Your task to perform on an android device: Show me the alarms in the clock app Image 0: 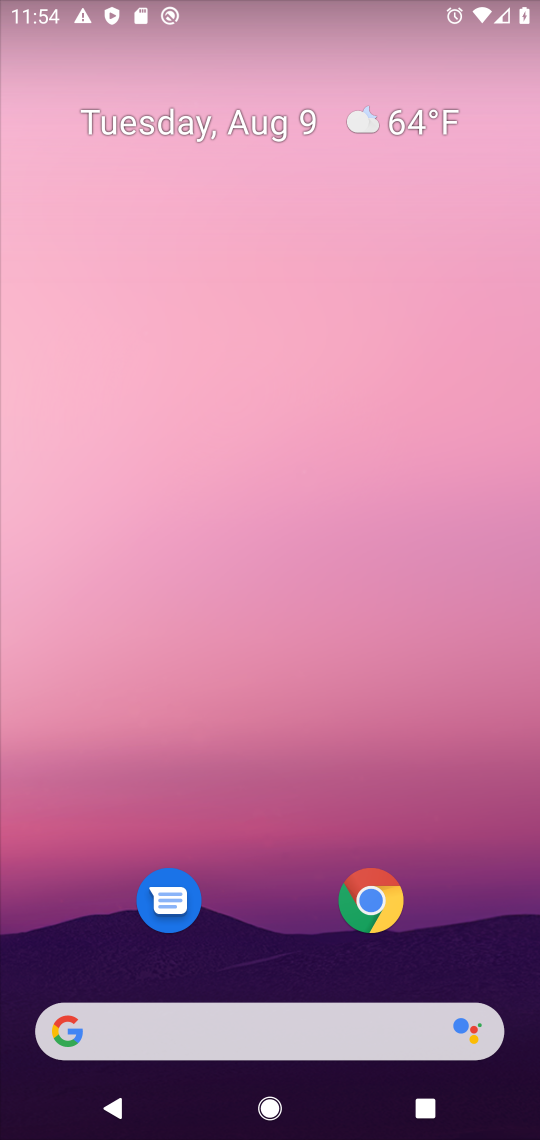
Step 0: drag from (301, 621) to (344, 155)
Your task to perform on an android device: Show me the alarms in the clock app Image 1: 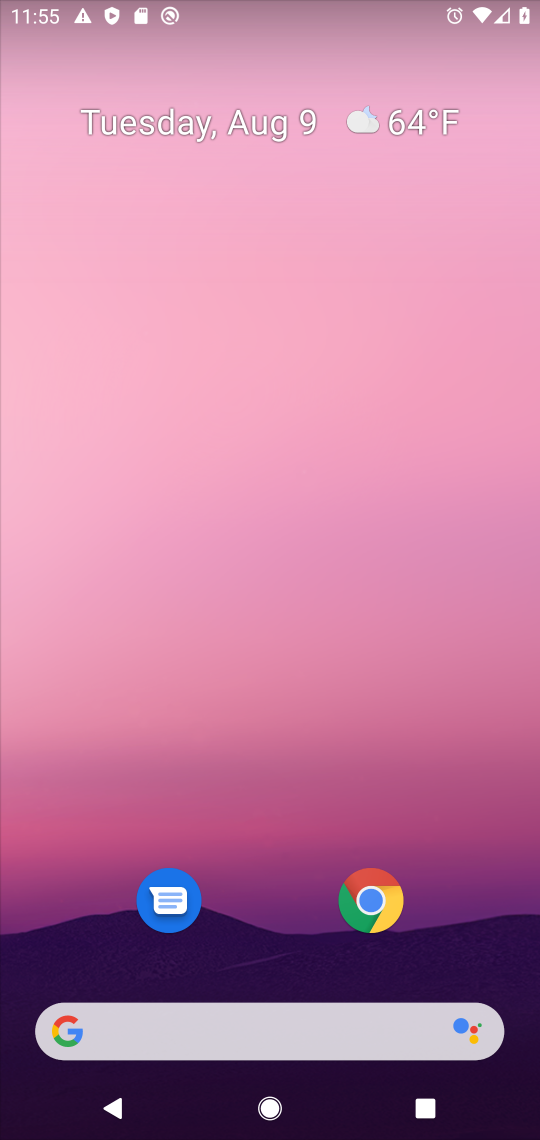
Step 1: drag from (244, 891) to (324, 25)
Your task to perform on an android device: Show me the alarms in the clock app Image 2: 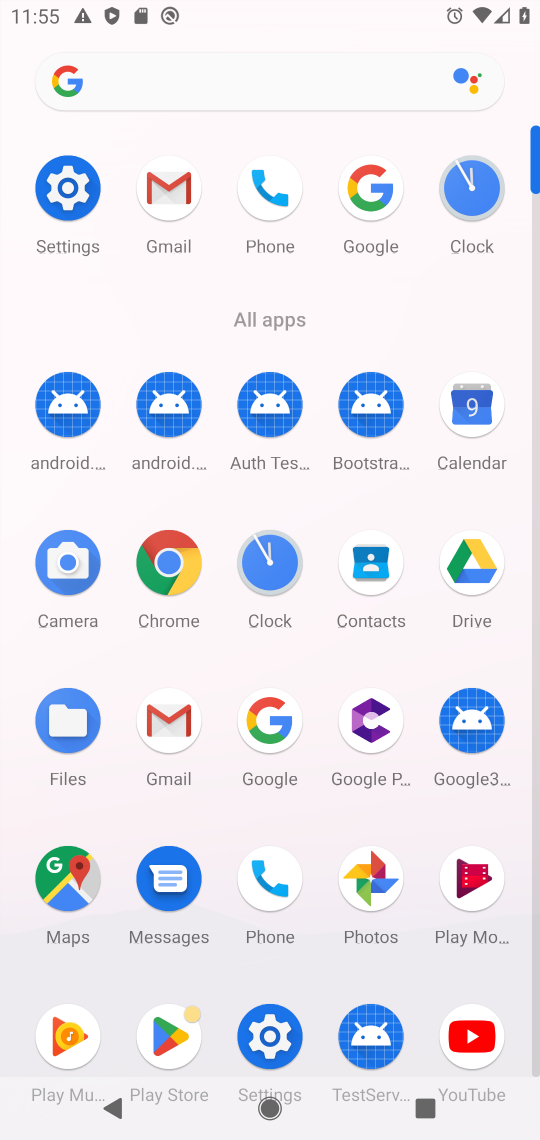
Step 2: click (485, 179)
Your task to perform on an android device: Show me the alarms in the clock app Image 3: 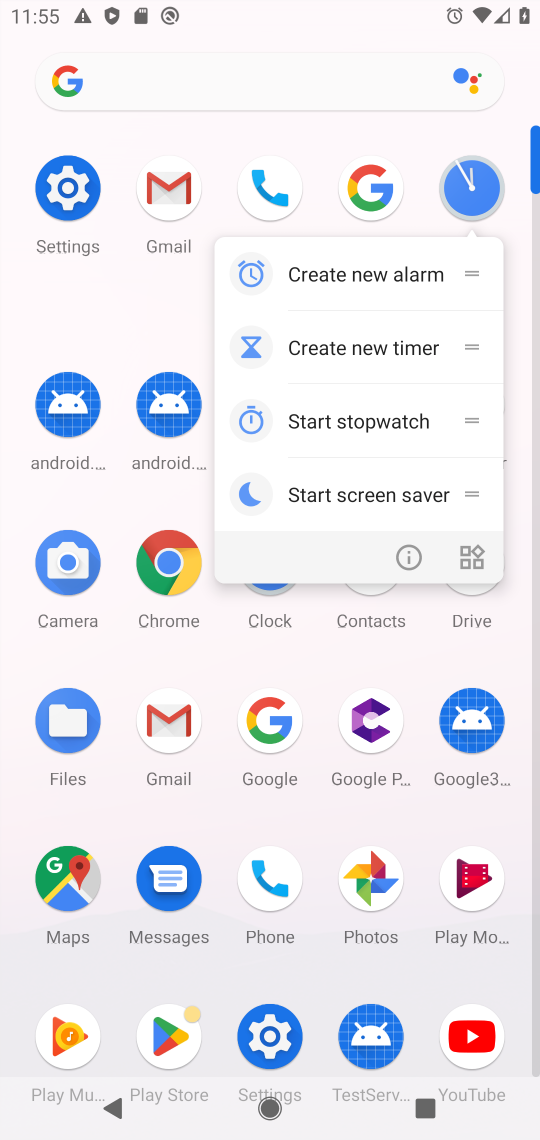
Step 3: click (463, 172)
Your task to perform on an android device: Show me the alarms in the clock app Image 4: 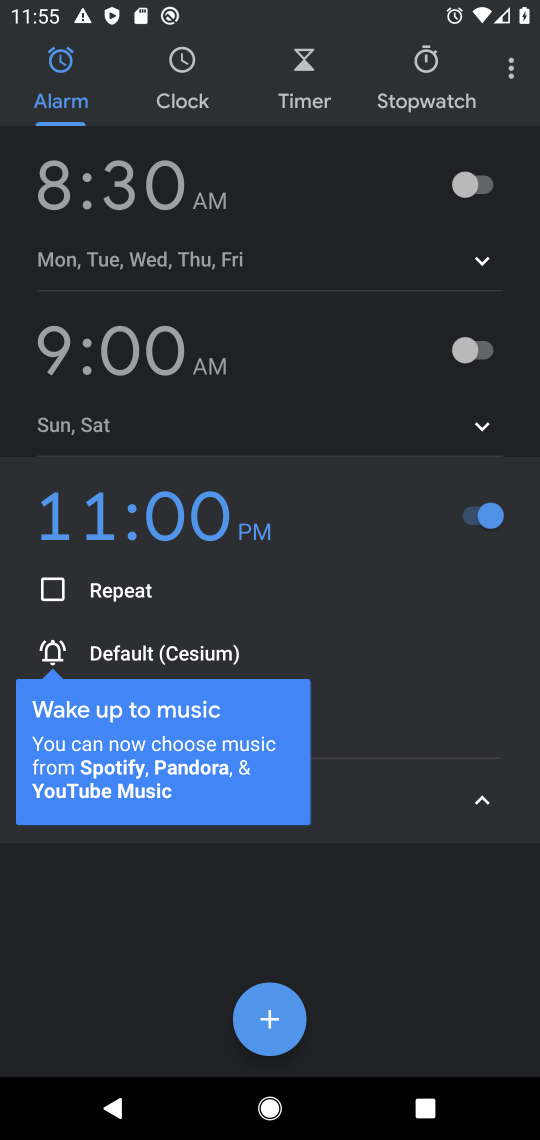
Step 4: task complete